Your task to perform on an android device: Is it going to rain tomorrow? Image 0: 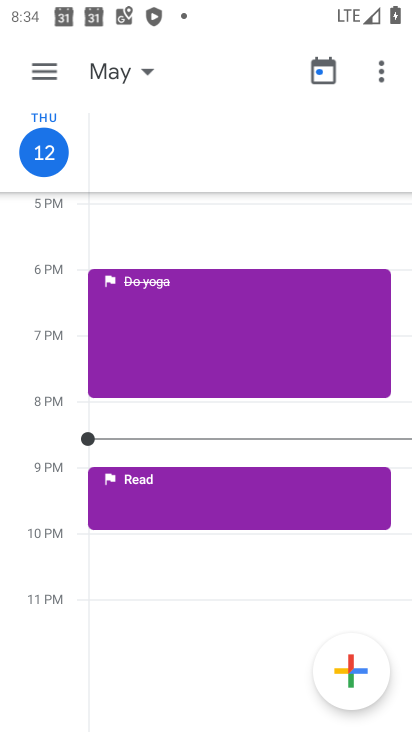
Step 0: press home button
Your task to perform on an android device: Is it going to rain tomorrow? Image 1: 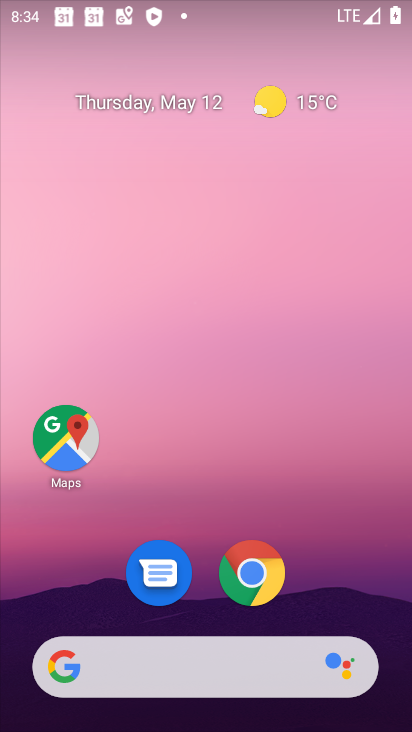
Step 1: press home button
Your task to perform on an android device: Is it going to rain tomorrow? Image 2: 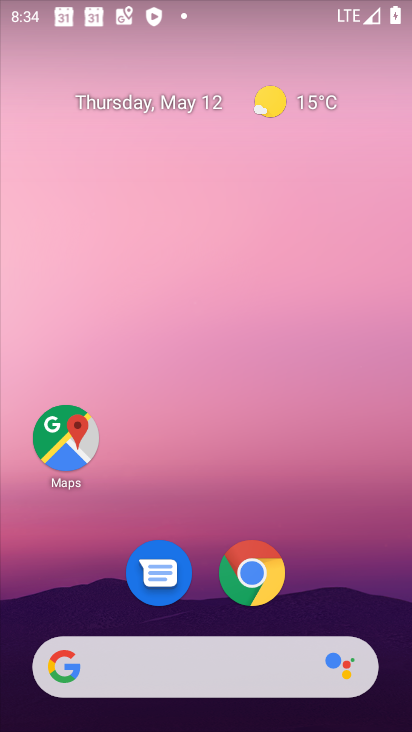
Step 2: drag from (271, 464) to (185, 62)
Your task to perform on an android device: Is it going to rain tomorrow? Image 3: 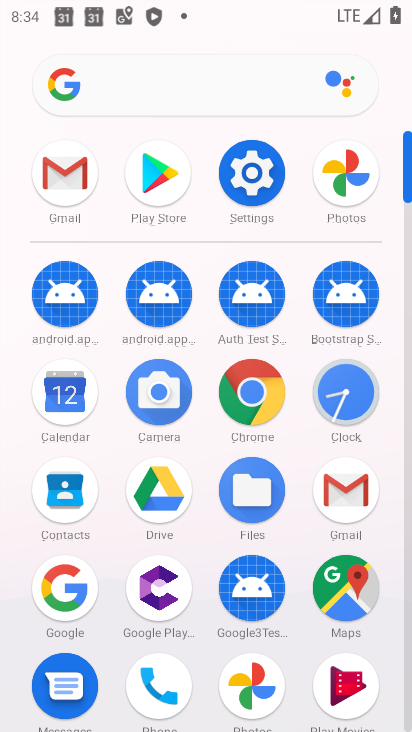
Step 3: click (67, 590)
Your task to perform on an android device: Is it going to rain tomorrow? Image 4: 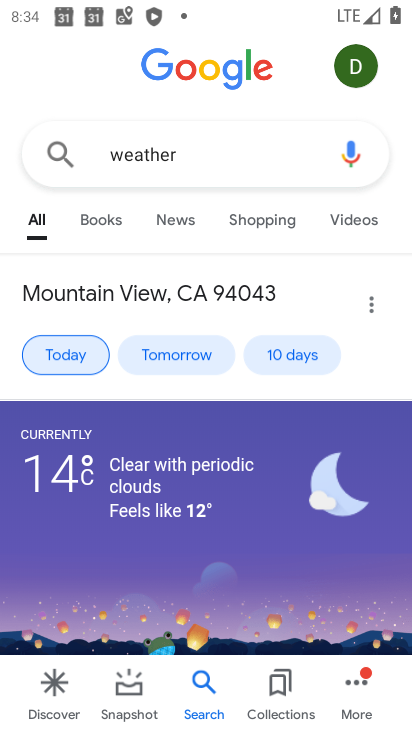
Step 4: click (176, 350)
Your task to perform on an android device: Is it going to rain tomorrow? Image 5: 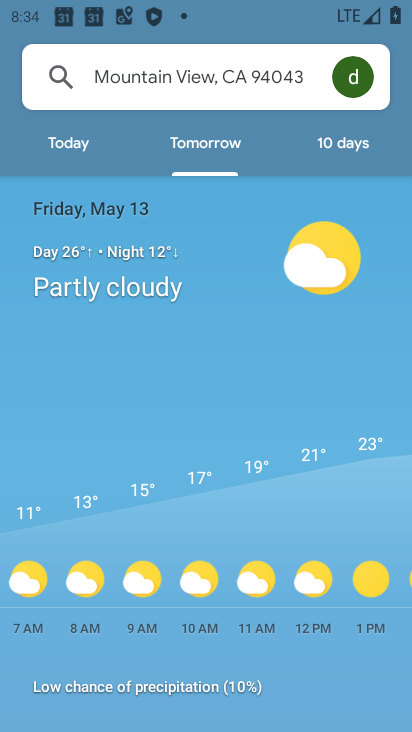
Step 5: task complete